Your task to perform on an android device: make emails show in primary in the gmail app Image 0: 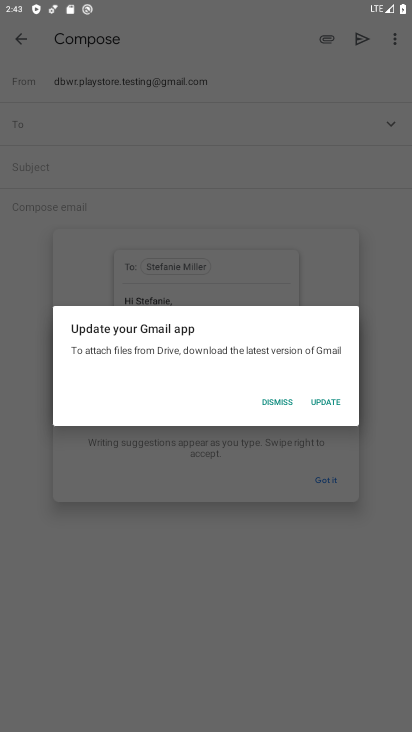
Step 0: press home button
Your task to perform on an android device: make emails show in primary in the gmail app Image 1: 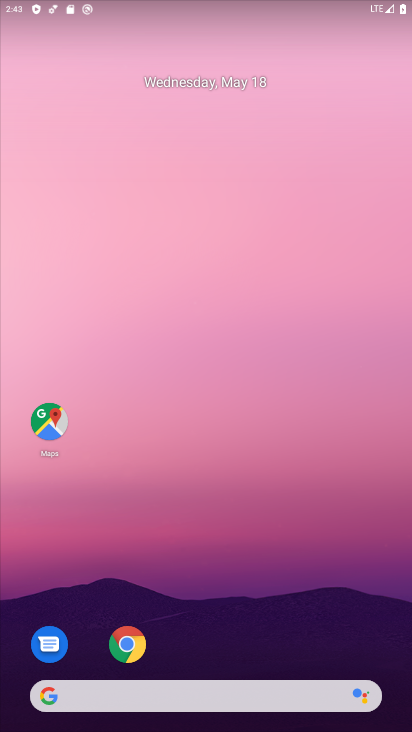
Step 1: drag from (208, 678) to (219, 218)
Your task to perform on an android device: make emails show in primary in the gmail app Image 2: 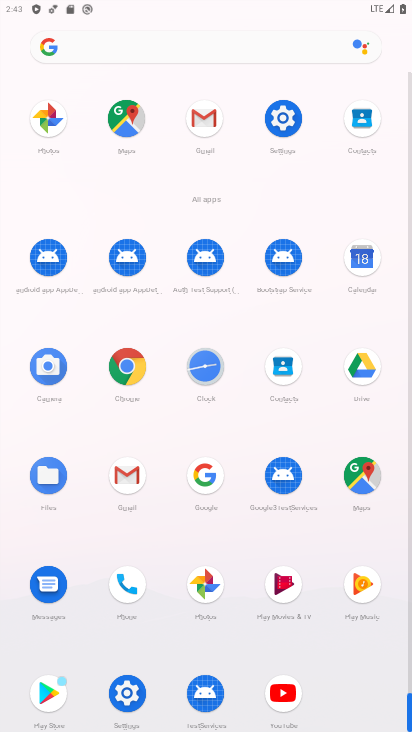
Step 2: click (135, 490)
Your task to perform on an android device: make emails show in primary in the gmail app Image 3: 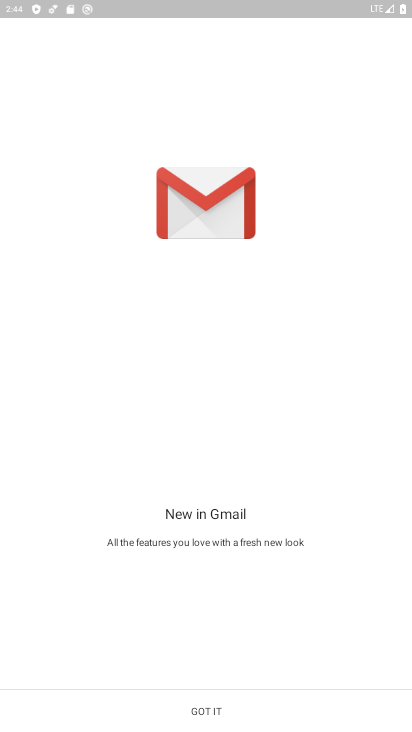
Step 3: click (219, 709)
Your task to perform on an android device: make emails show in primary in the gmail app Image 4: 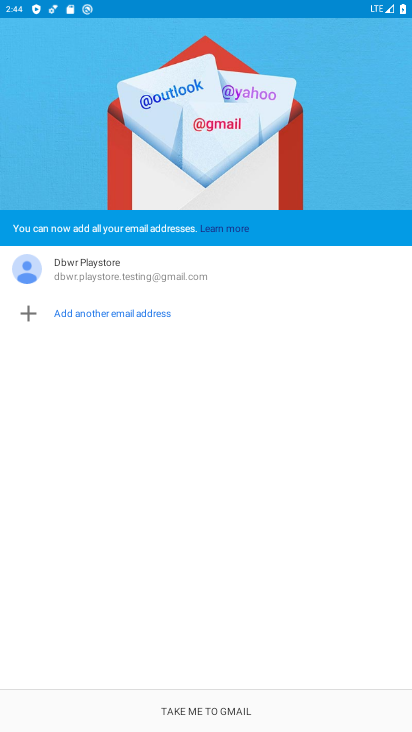
Step 4: click (211, 712)
Your task to perform on an android device: make emails show in primary in the gmail app Image 5: 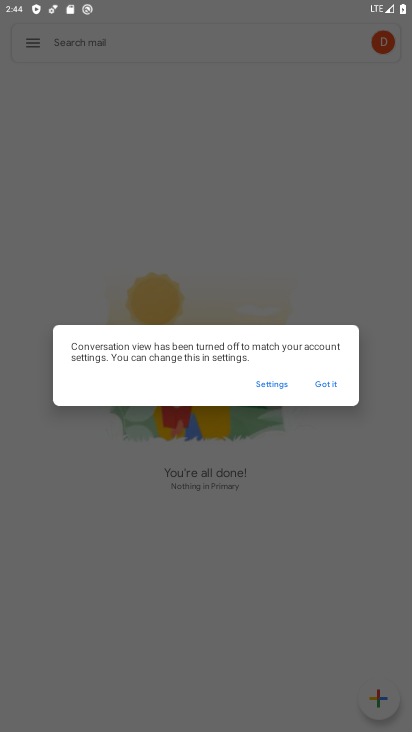
Step 5: click (327, 386)
Your task to perform on an android device: make emails show in primary in the gmail app Image 6: 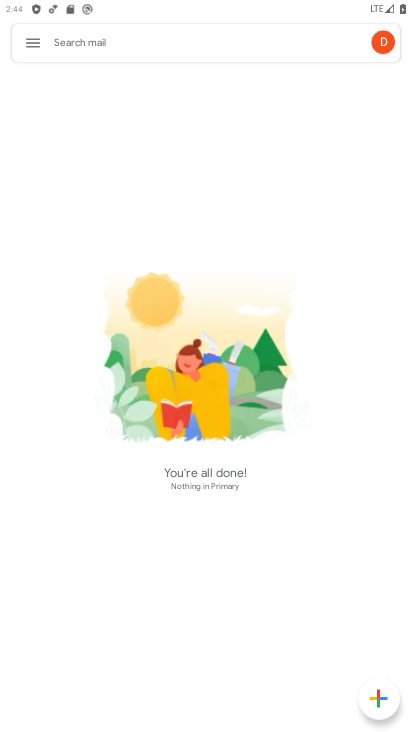
Step 6: click (29, 44)
Your task to perform on an android device: make emails show in primary in the gmail app Image 7: 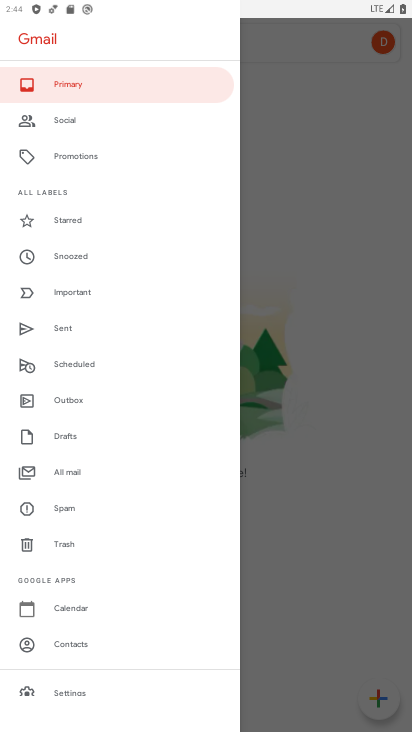
Step 7: drag from (88, 685) to (110, 266)
Your task to perform on an android device: make emails show in primary in the gmail app Image 8: 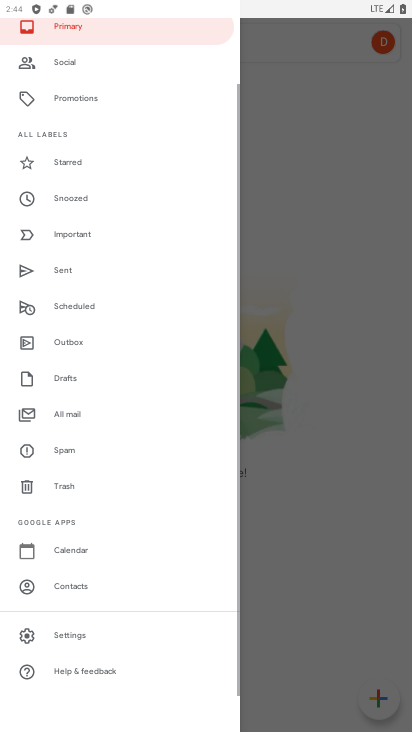
Step 8: click (64, 635)
Your task to perform on an android device: make emails show in primary in the gmail app Image 9: 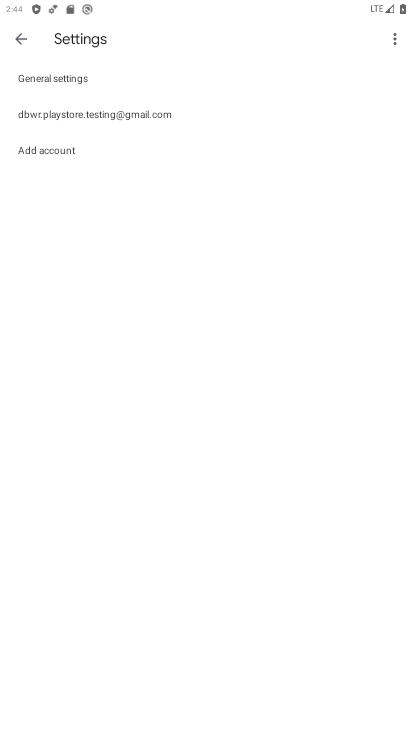
Step 9: click (58, 114)
Your task to perform on an android device: make emails show in primary in the gmail app Image 10: 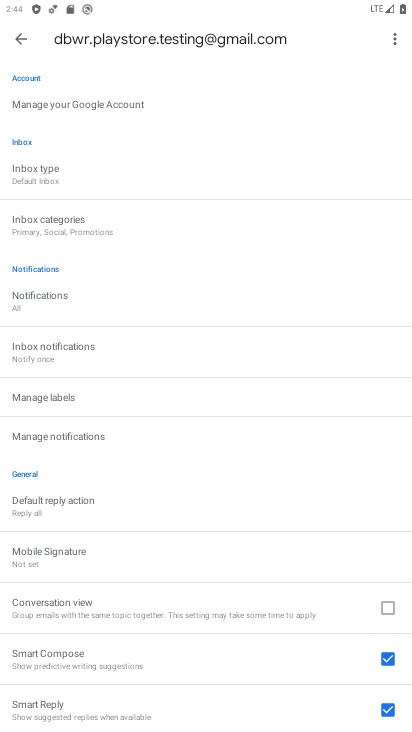
Step 10: click (46, 178)
Your task to perform on an android device: make emails show in primary in the gmail app Image 11: 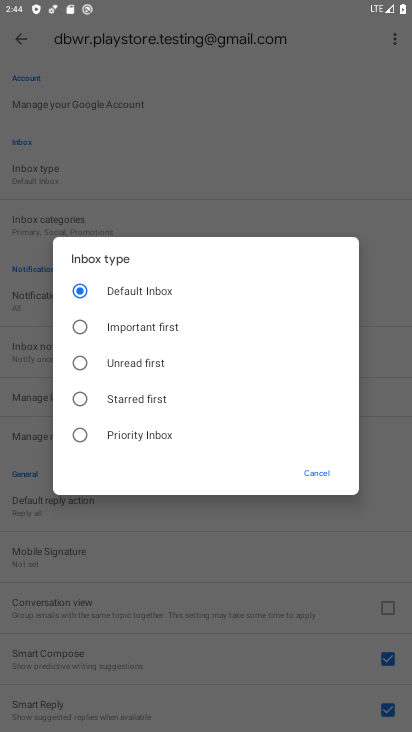
Step 11: click (129, 290)
Your task to perform on an android device: make emails show in primary in the gmail app Image 12: 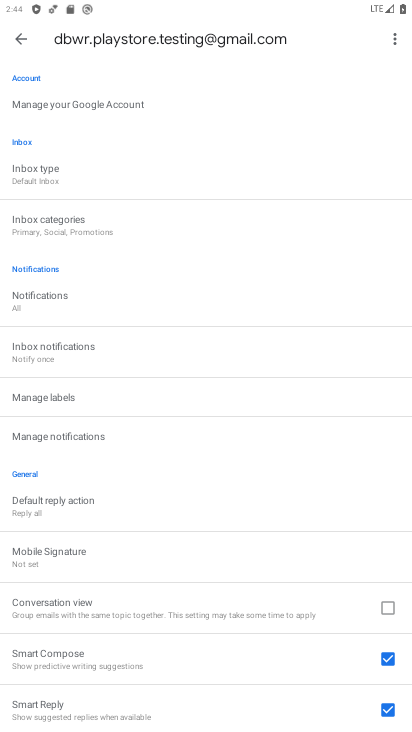
Step 12: click (73, 221)
Your task to perform on an android device: make emails show in primary in the gmail app Image 13: 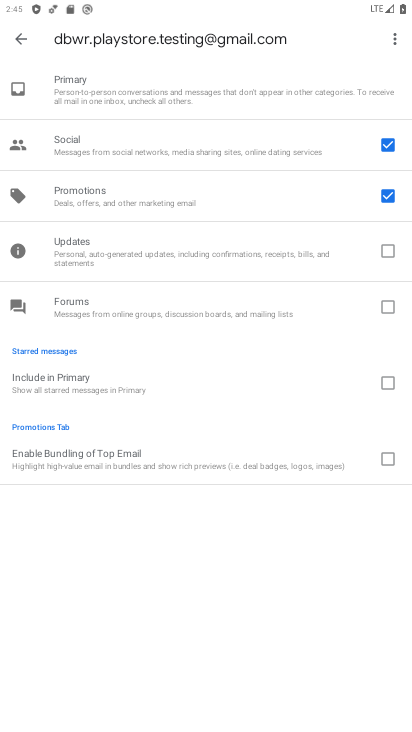
Step 13: click (388, 191)
Your task to perform on an android device: make emails show in primary in the gmail app Image 14: 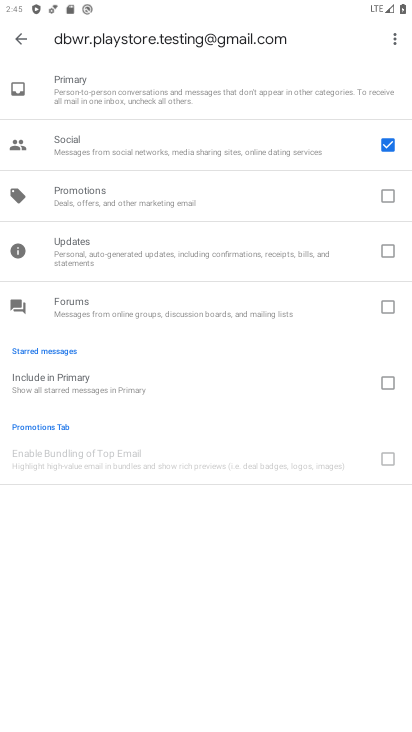
Step 14: click (386, 148)
Your task to perform on an android device: make emails show in primary in the gmail app Image 15: 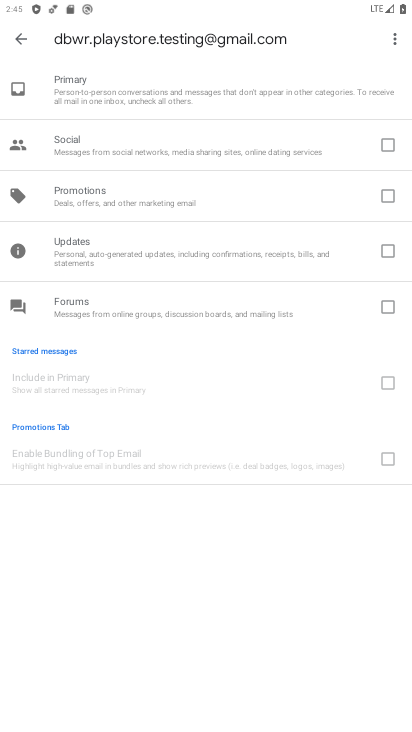
Step 15: click (22, 35)
Your task to perform on an android device: make emails show in primary in the gmail app Image 16: 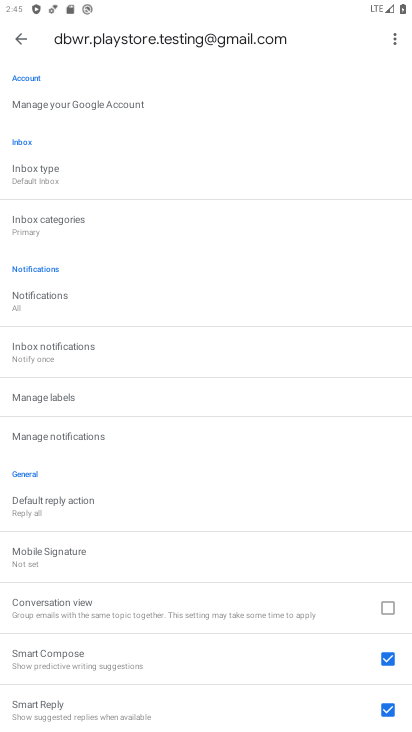
Step 16: task complete